Your task to perform on an android device: install app "Paramount+ | Peak Streaming" Image 0: 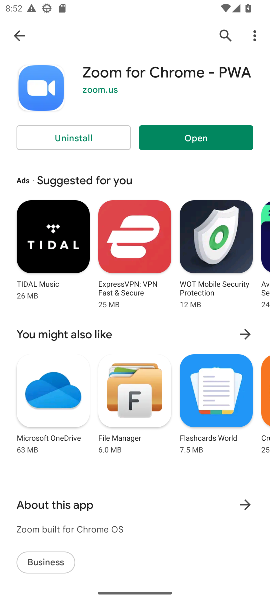
Step 0: click (229, 41)
Your task to perform on an android device: install app "Paramount+ | Peak Streaming" Image 1: 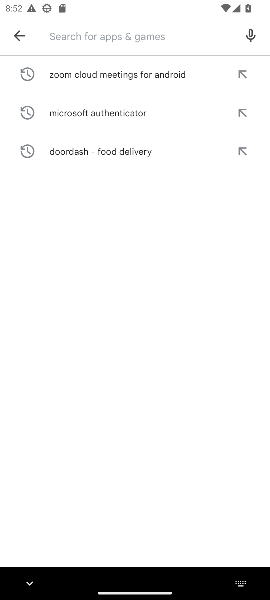
Step 1: type "paramount"
Your task to perform on an android device: install app "Paramount+ | Peak Streaming" Image 2: 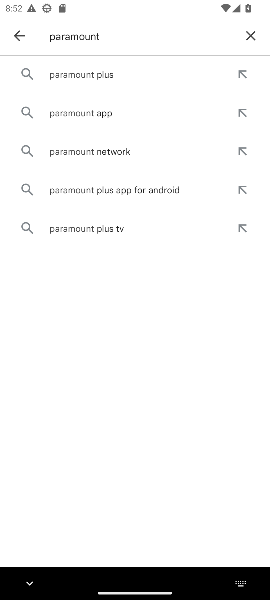
Step 2: click (251, 36)
Your task to perform on an android device: install app "Paramount+ | Peak Streaming" Image 3: 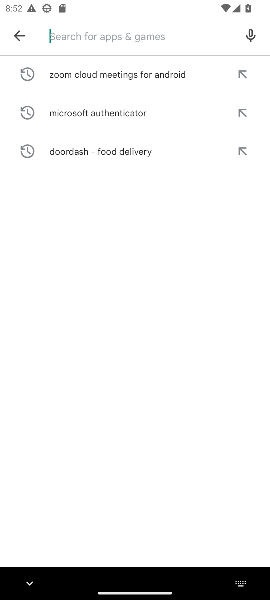
Step 3: type "Paramount+ | Peak Streaming"
Your task to perform on an android device: install app "Paramount+ | Peak Streaming" Image 4: 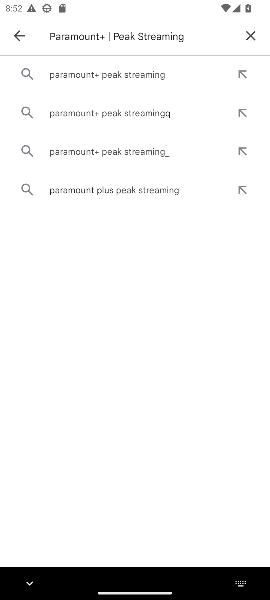
Step 4: click (123, 77)
Your task to perform on an android device: install app "Paramount+ | Peak Streaming" Image 5: 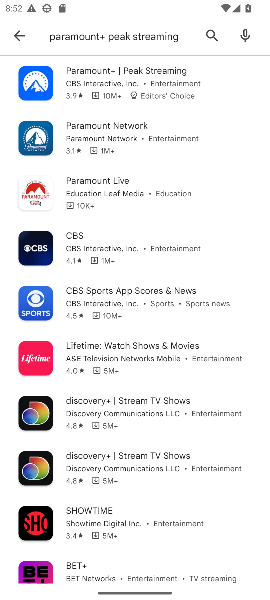
Step 5: click (123, 78)
Your task to perform on an android device: install app "Paramount+ | Peak Streaming" Image 6: 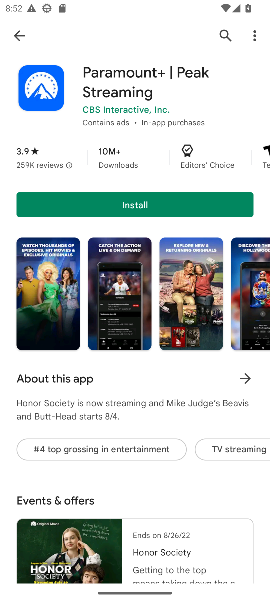
Step 6: click (137, 199)
Your task to perform on an android device: install app "Paramount+ | Peak Streaming" Image 7: 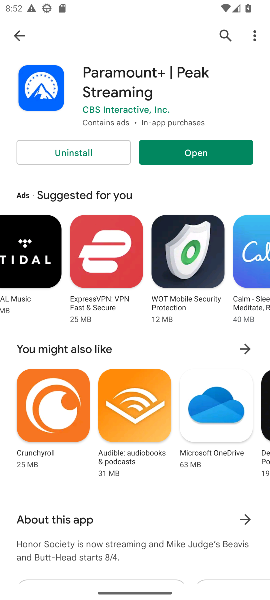
Step 7: task complete